Your task to perform on an android device: Open the calendar and show me this week's events? Image 0: 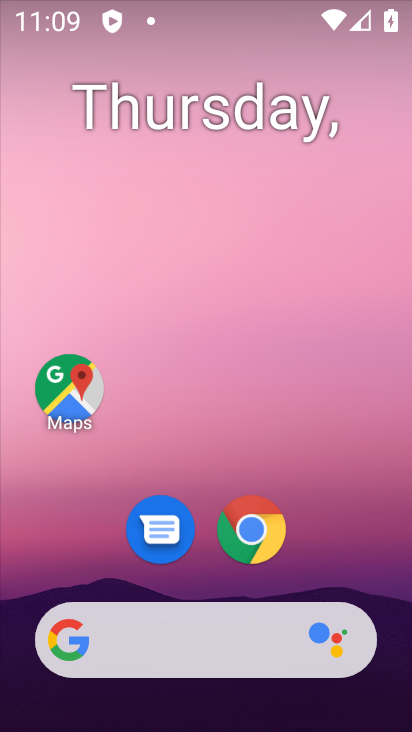
Step 0: drag from (213, 629) to (256, 321)
Your task to perform on an android device: Open the calendar and show me this week's events? Image 1: 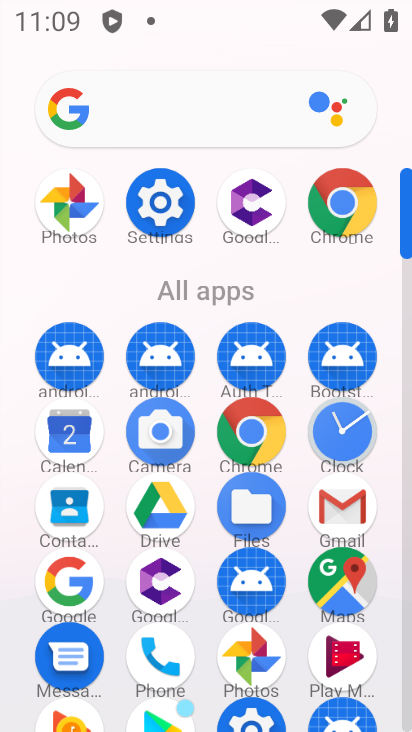
Step 1: click (48, 443)
Your task to perform on an android device: Open the calendar and show me this week's events? Image 2: 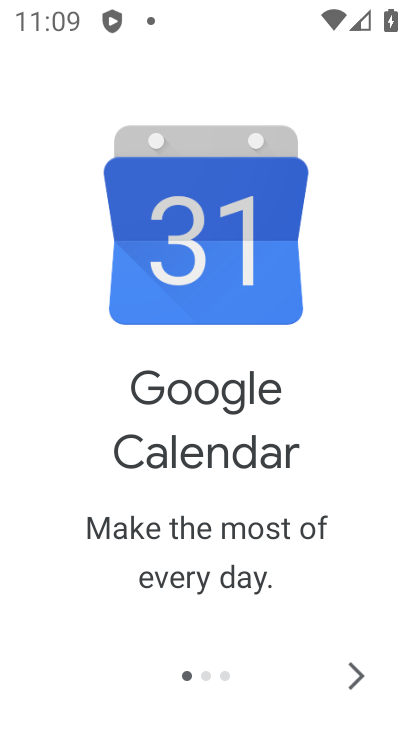
Step 2: click (346, 678)
Your task to perform on an android device: Open the calendar and show me this week's events? Image 3: 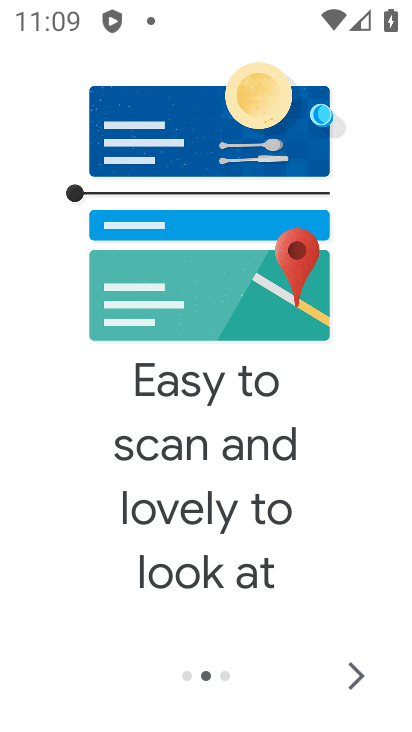
Step 3: click (347, 677)
Your task to perform on an android device: Open the calendar and show me this week's events? Image 4: 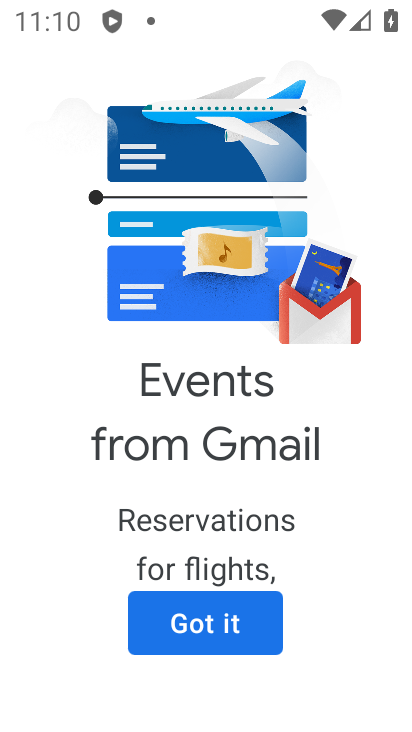
Step 4: click (225, 626)
Your task to perform on an android device: Open the calendar and show me this week's events? Image 5: 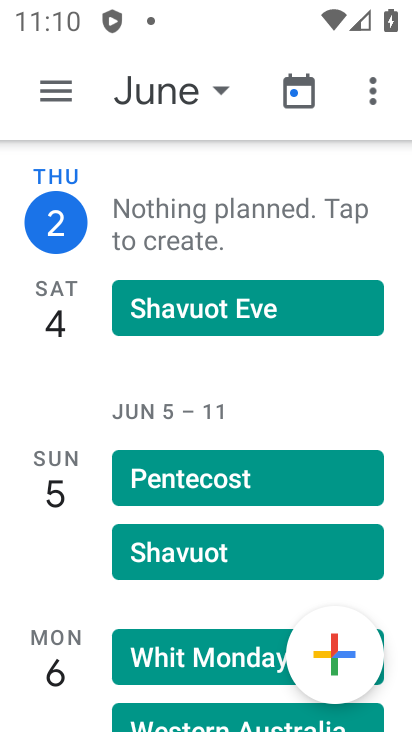
Step 5: task complete